Your task to perform on an android device: Go to Android settings Image 0: 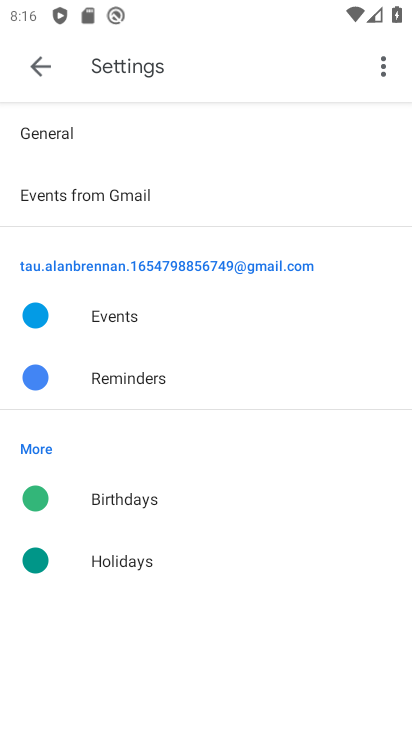
Step 0: press home button
Your task to perform on an android device: Go to Android settings Image 1: 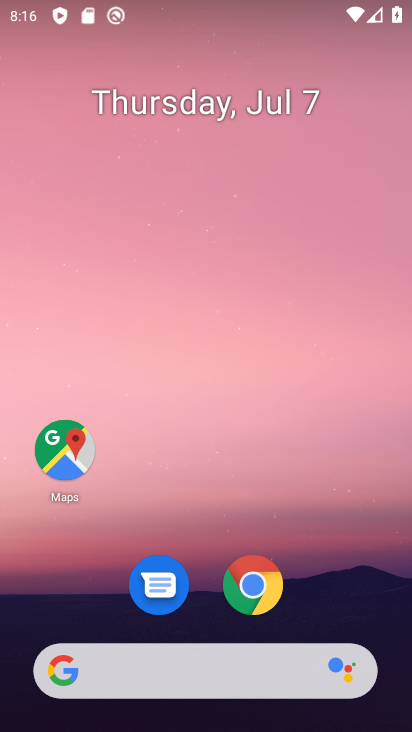
Step 1: drag from (206, 524) to (213, 65)
Your task to perform on an android device: Go to Android settings Image 2: 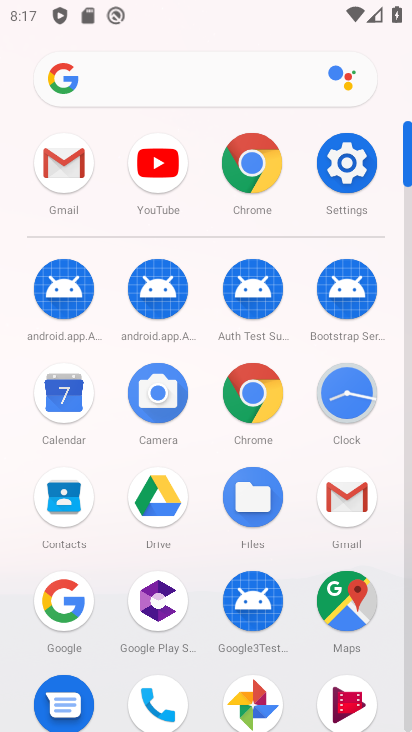
Step 2: click (354, 183)
Your task to perform on an android device: Go to Android settings Image 3: 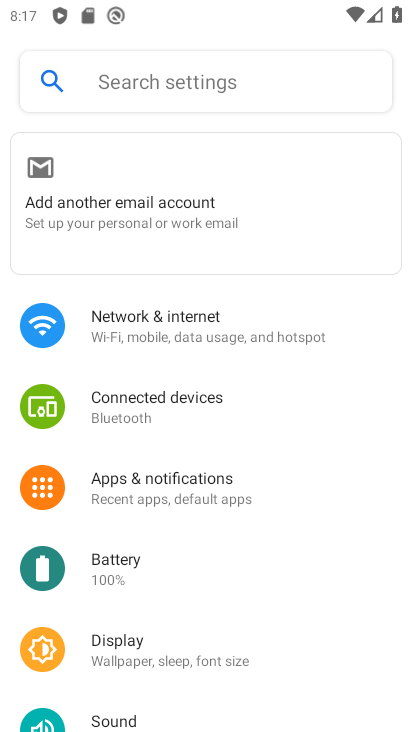
Step 3: drag from (246, 618) to (278, 118)
Your task to perform on an android device: Go to Android settings Image 4: 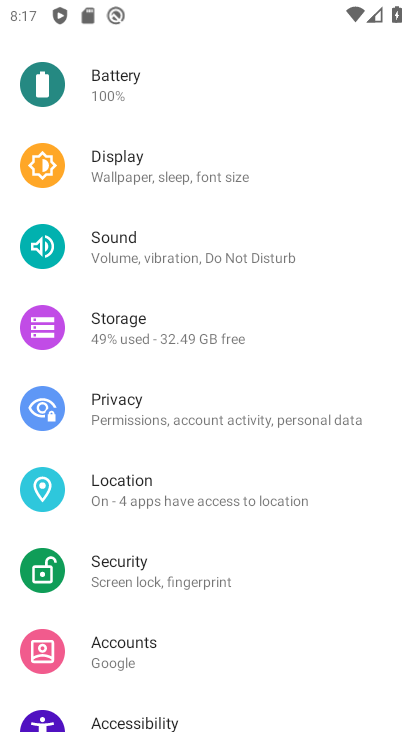
Step 4: drag from (243, 588) to (222, 151)
Your task to perform on an android device: Go to Android settings Image 5: 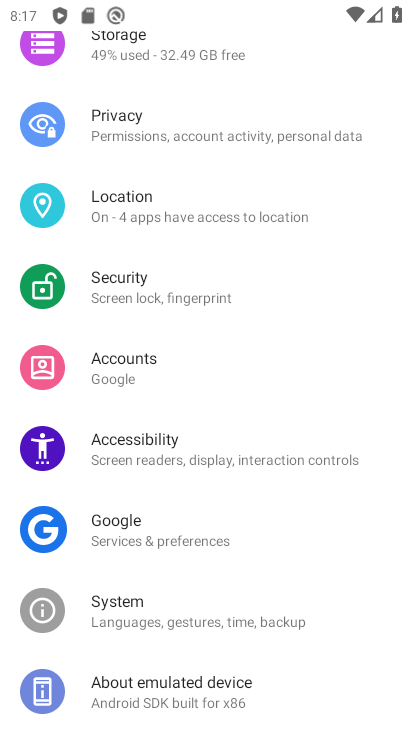
Step 5: click (206, 688)
Your task to perform on an android device: Go to Android settings Image 6: 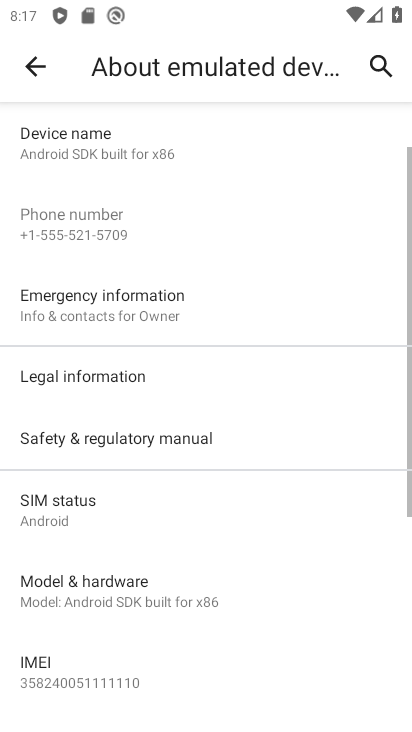
Step 6: task complete